Your task to perform on an android device: Search for sushi restaurants on Maps Image 0: 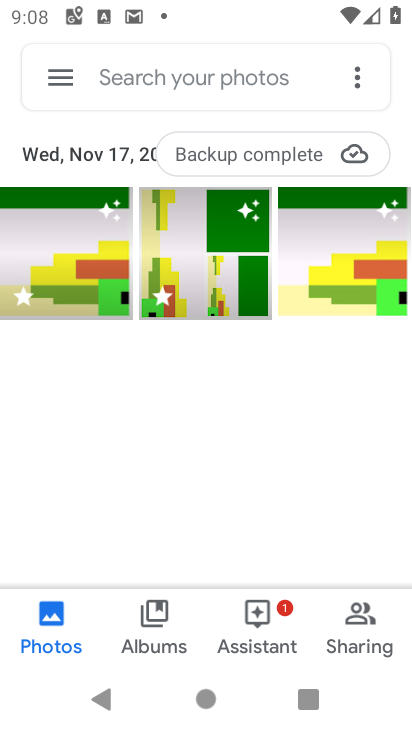
Step 0: press home button
Your task to perform on an android device: Search for sushi restaurants on Maps Image 1: 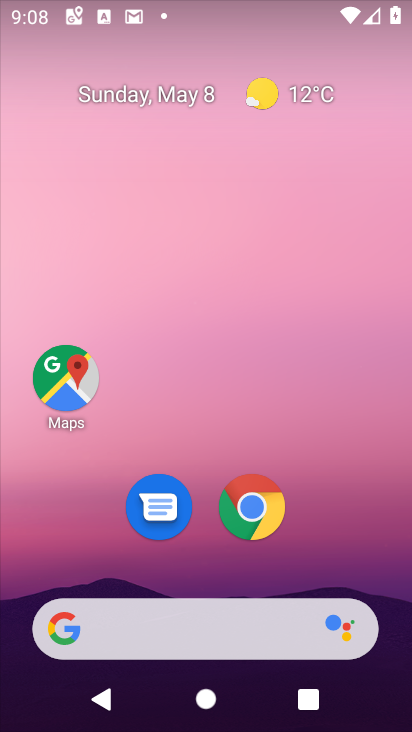
Step 1: click (64, 385)
Your task to perform on an android device: Search for sushi restaurants on Maps Image 2: 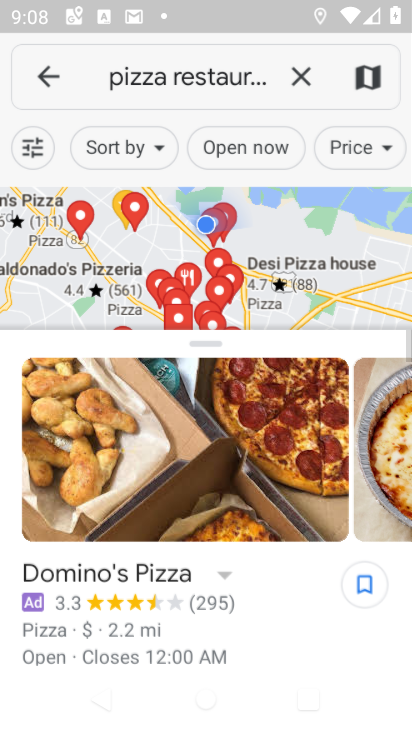
Step 2: click (309, 82)
Your task to perform on an android device: Search for sushi restaurants on Maps Image 3: 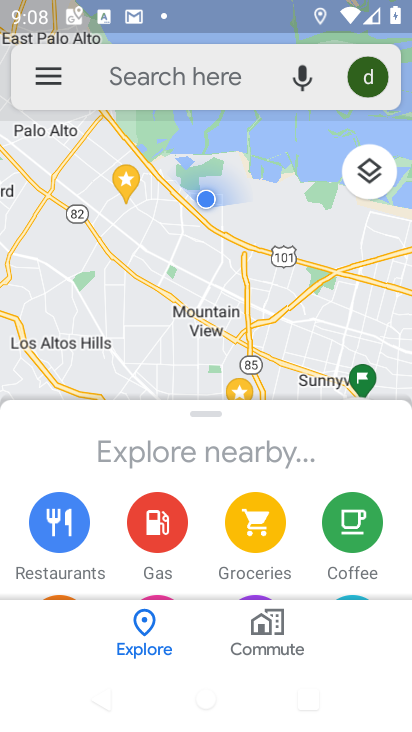
Step 3: click (220, 75)
Your task to perform on an android device: Search for sushi restaurants on Maps Image 4: 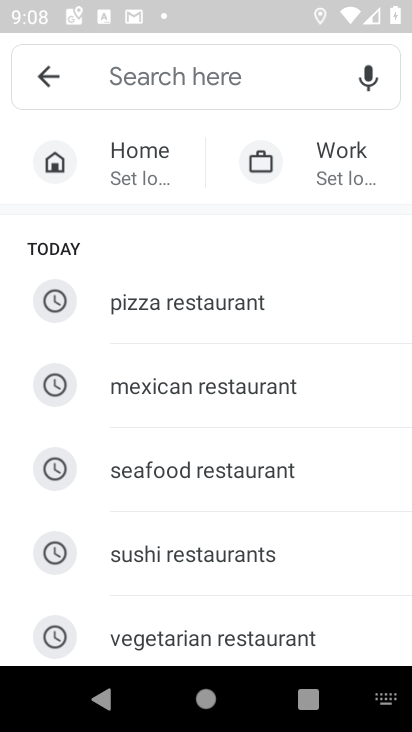
Step 4: click (260, 558)
Your task to perform on an android device: Search for sushi restaurants on Maps Image 5: 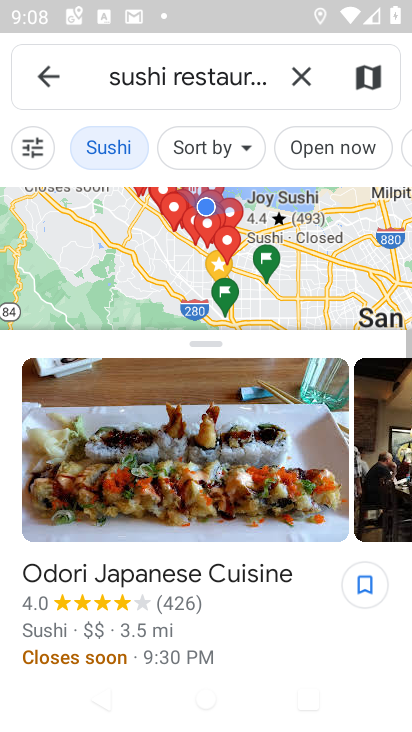
Step 5: task complete